Your task to perform on an android device: Open Chrome and go to the settings page Image 0: 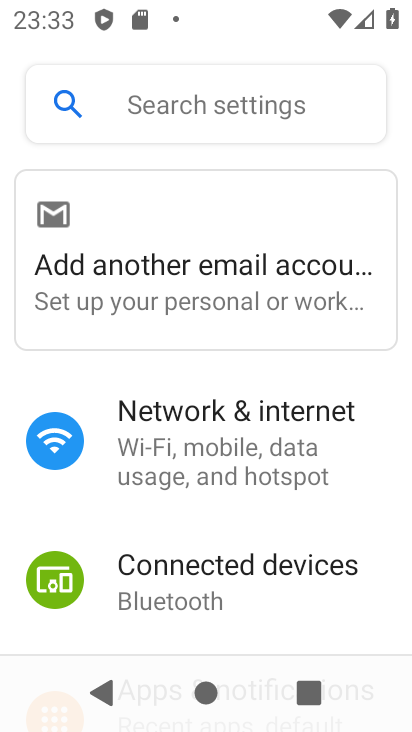
Step 0: press home button
Your task to perform on an android device: Open Chrome and go to the settings page Image 1: 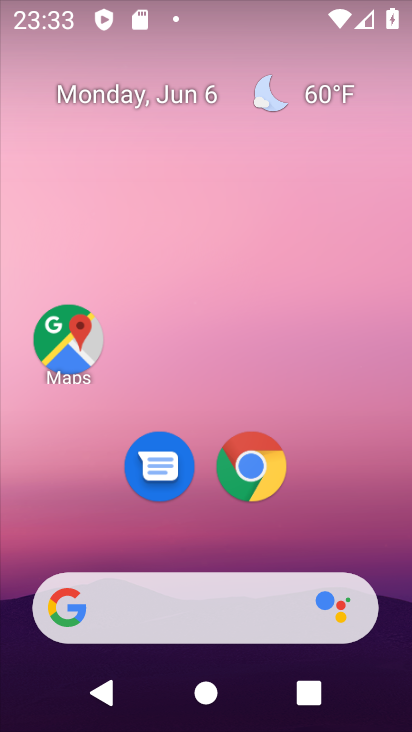
Step 1: click (241, 464)
Your task to perform on an android device: Open Chrome and go to the settings page Image 2: 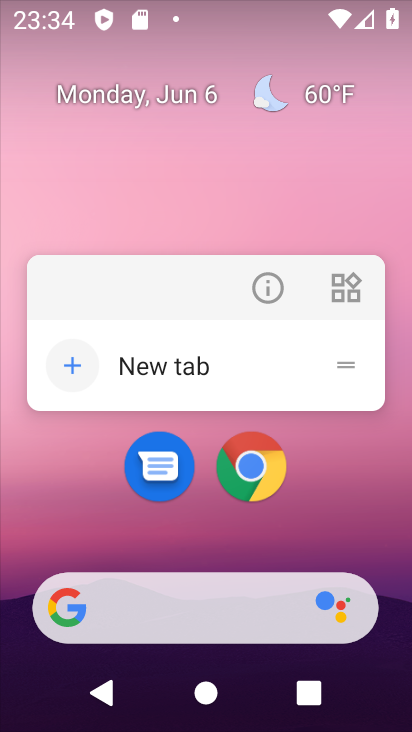
Step 2: click (268, 456)
Your task to perform on an android device: Open Chrome and go to the settings page Image 3: 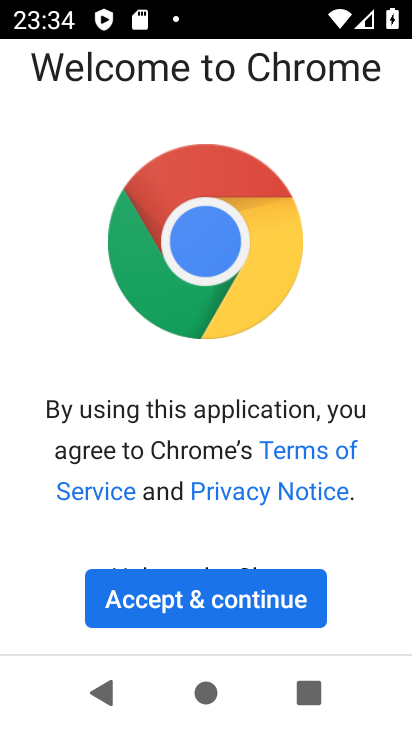
Step 3: click (197, 604)
Your task to perform on an android device: Open Chrome and go to the settings page Image 4: 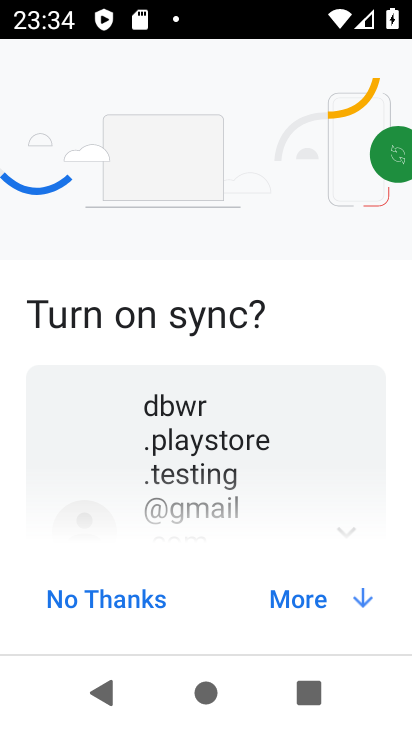
Step 4: click (325, 606)
Your task to perform on an android device: Open Chrome and go to the settings page Image 5: 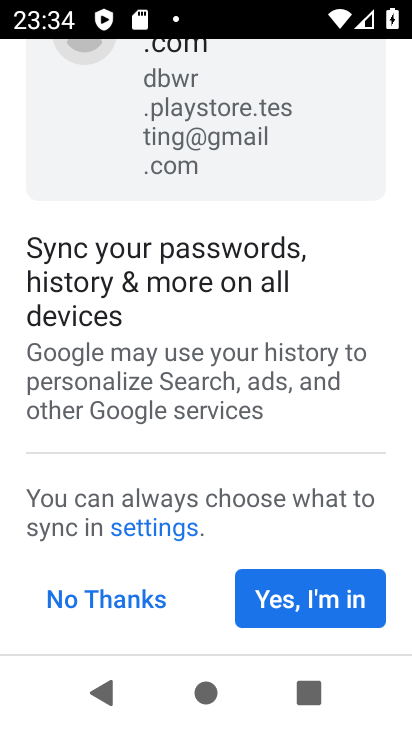
Step 5: click (325, 606)
Your task to perform on an android device: Open Chrome and go to the settings page Image 6: 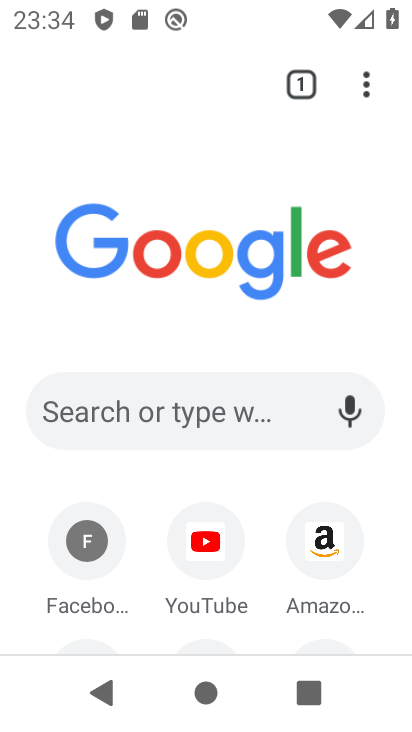
Step 6: click (372, 88)
Your task to perform on an android device: Open Chrome and go to the settings page Image 7: 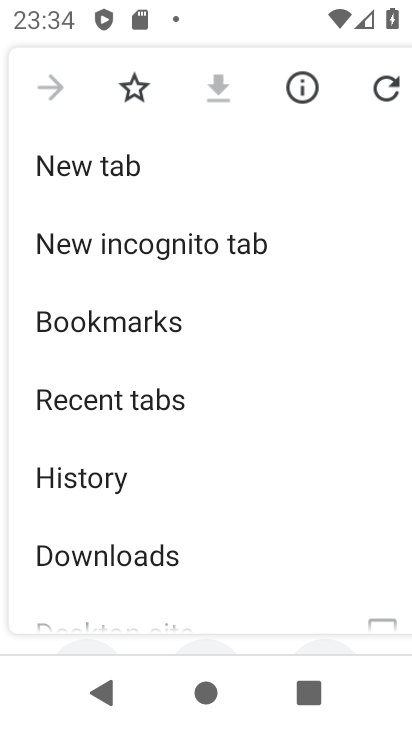
Step 7: drag from (231, 523) to (187, 230)
Your task to perform on an android device: Open Chrome and go to the settings page Image 8: 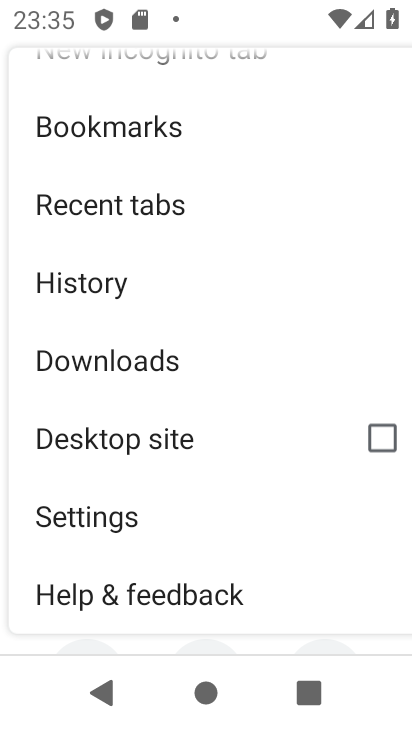
Step 8: click (108, 537)
Your task to perform on an android device: Open Chrome and go to the settings page Image 9: 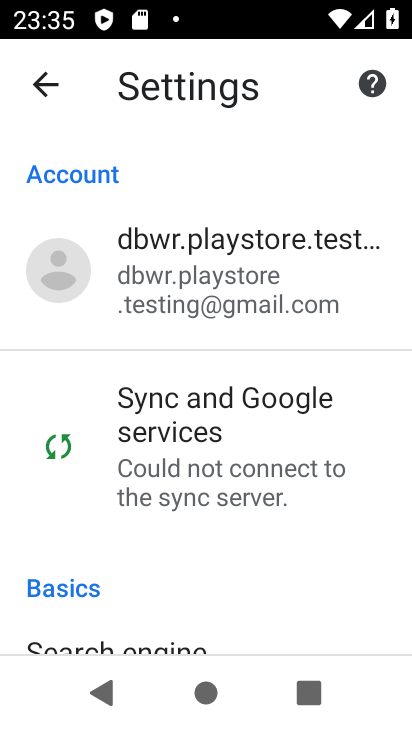
Step 9: task complete